Your task to perform on an android device: see creations saved in the google photos Image 0: 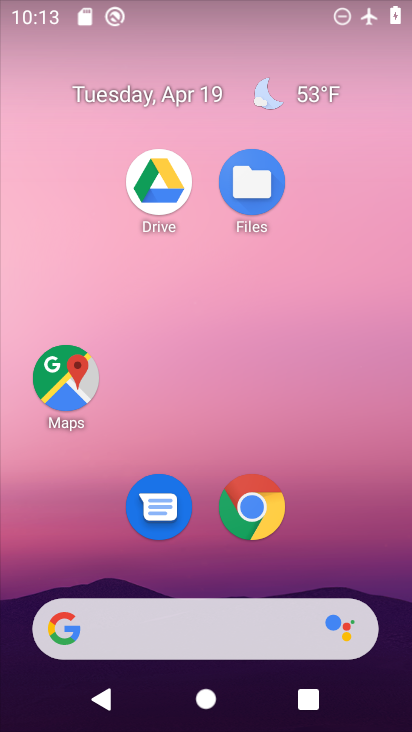
Step 0: drag from (354, 520) to (326, 150)
Your task to perform on an android device: see creations saved in the google photos Image 1: 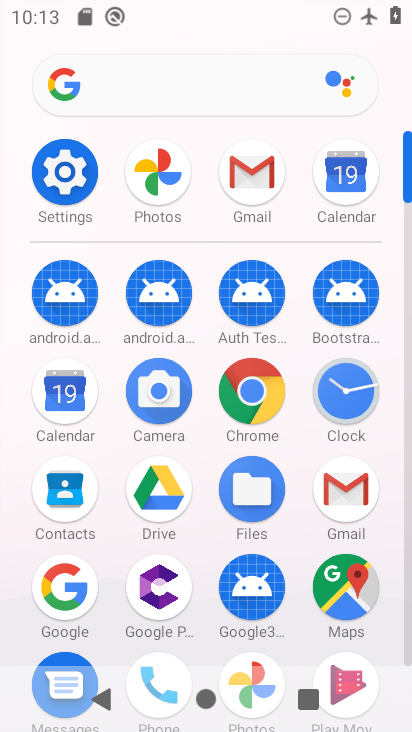
Step 1: click (178, 173)
Your task to perform on an android device: see creations saved in the google photos Image 2: 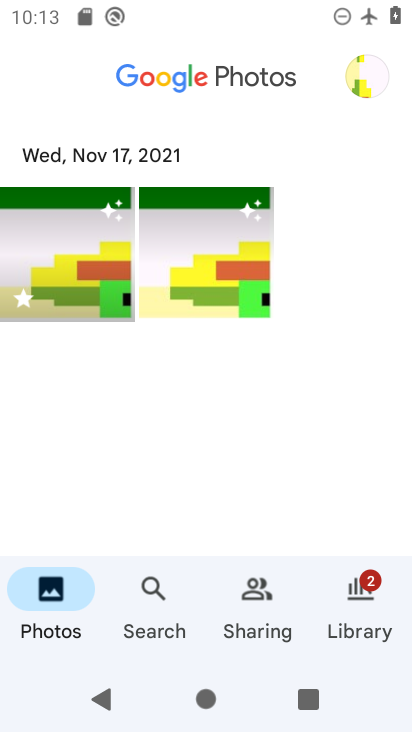
Step 2: click (158, 582)
Your task to perform on an android device: see creations saved in the google photos Image 3: 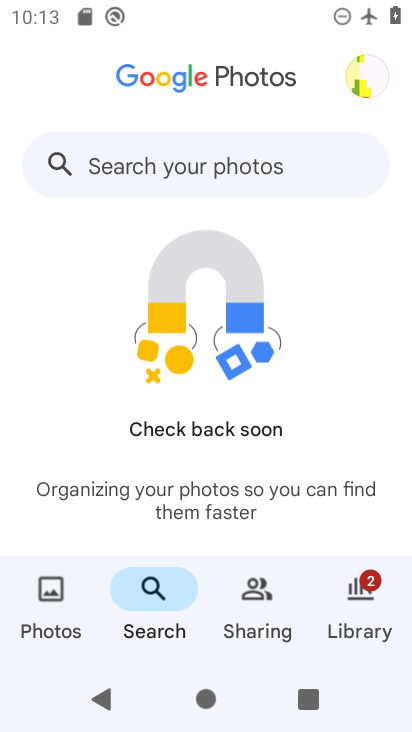
Step 3: drag from (195, 410) to (198, 113)
Your task to perform on an android device: see creations saved in the google photos Image 4: 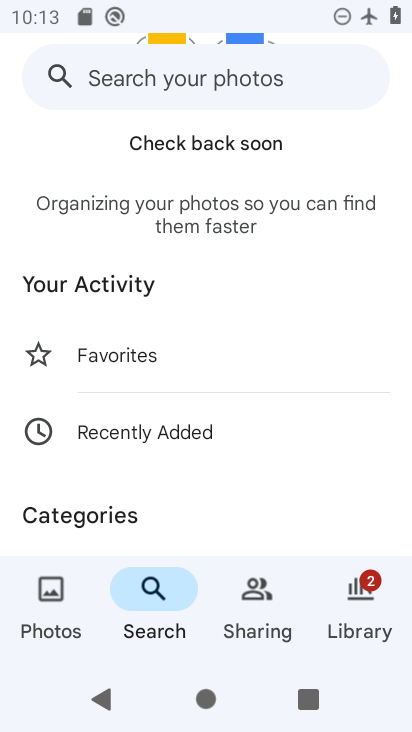
Step 4: drag from (202, 466) to (227, 161)
Your task to perform on an android device: see creations saved in the google photos Image 5: 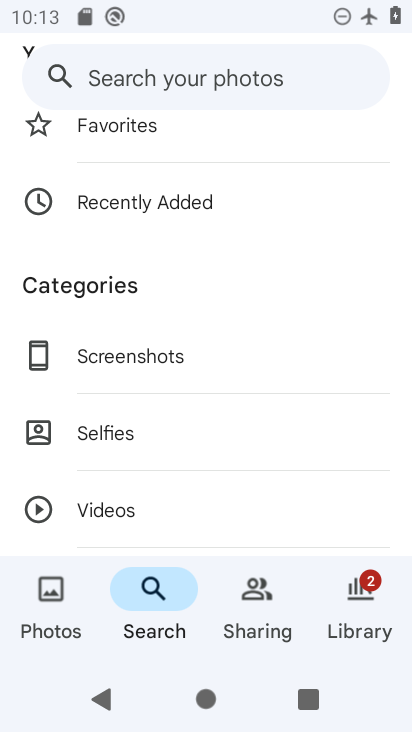
Step 5: drag from (202, 510) to (214, 187)
Your task to perform on an android device: see creations saved in the google photos Image 6: 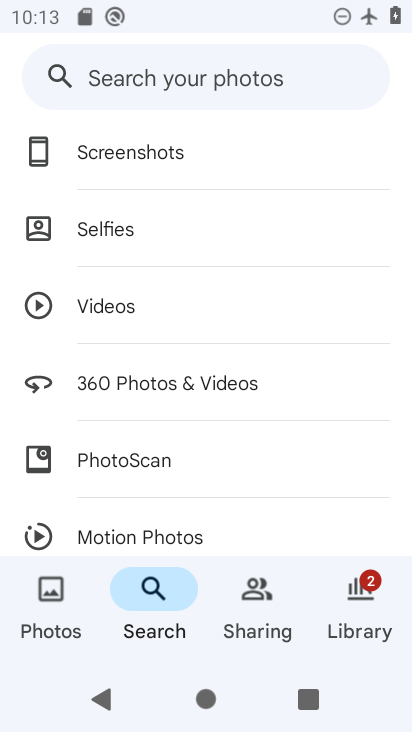
Step 6: drag from (215, 519) to (243, 270)
Your task to perform on an android device: see creations saved in the google photos Image 7: 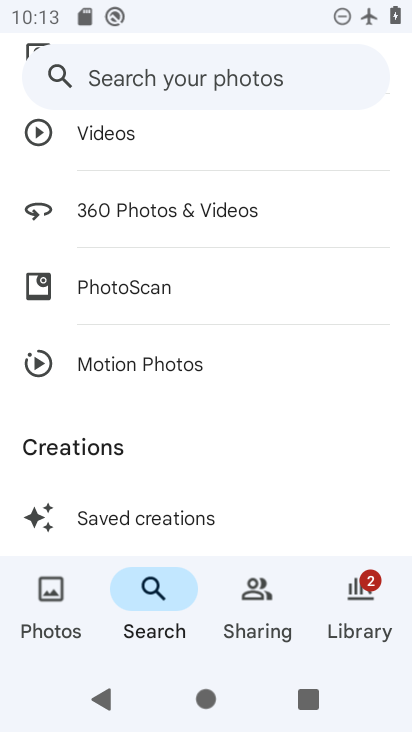
Step 7: click (186, 518)
Your task to perform on an android device: see creations saved in the google photos Image 8: 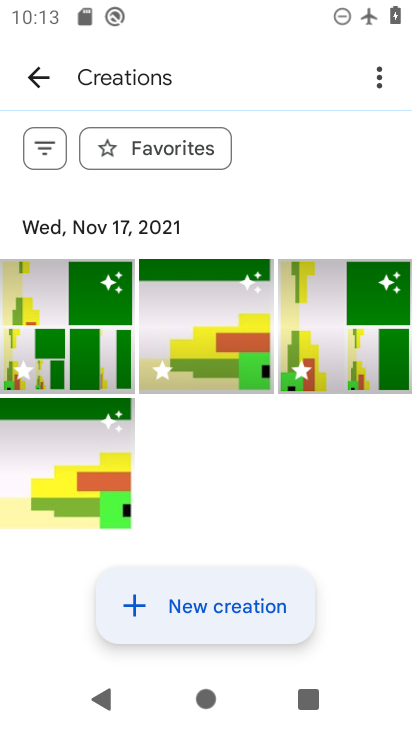
Step 8: task complete